Your task to perform on an android device: Play the last video I watched on Youtube Image 0: 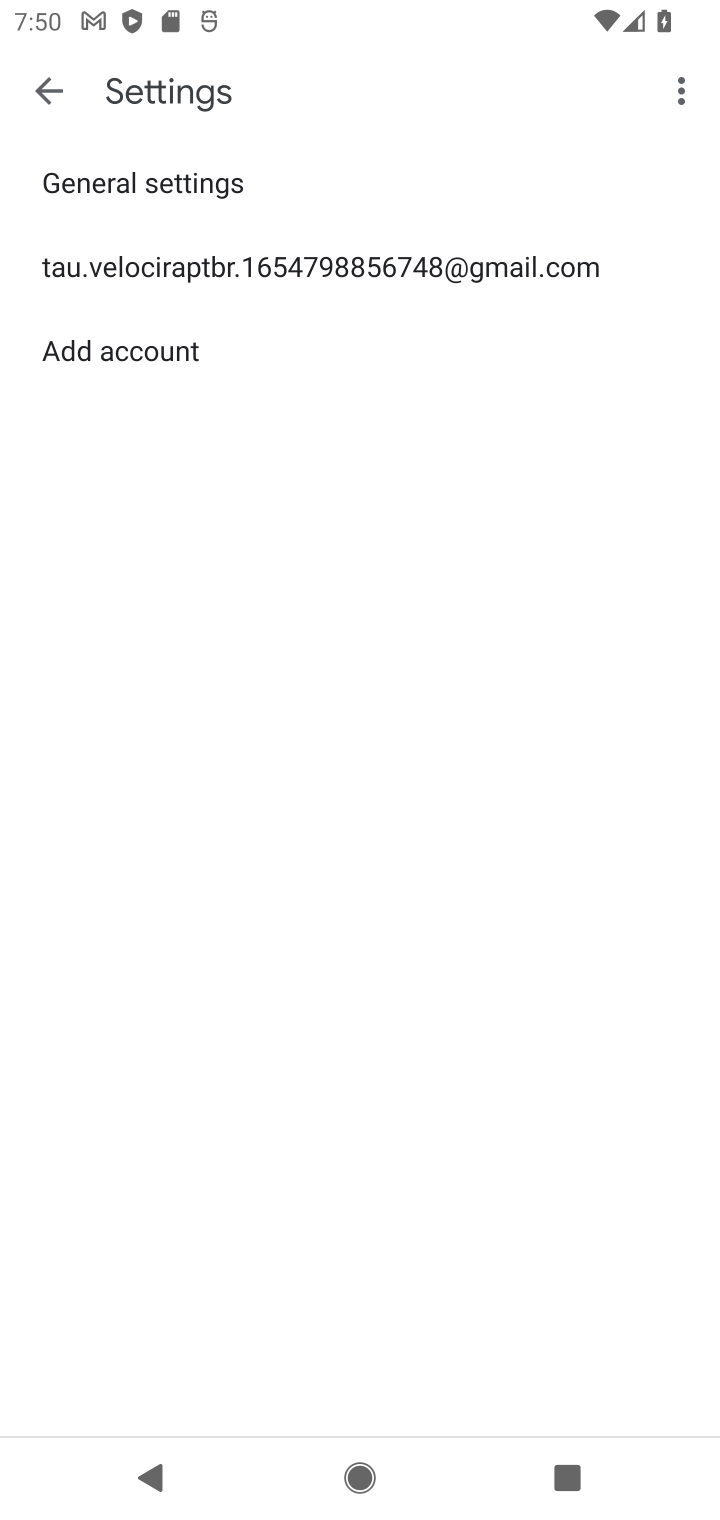
Step 0: press home button
Your task to perform on an android device: Play the last video I watched on Youtube Image 1: 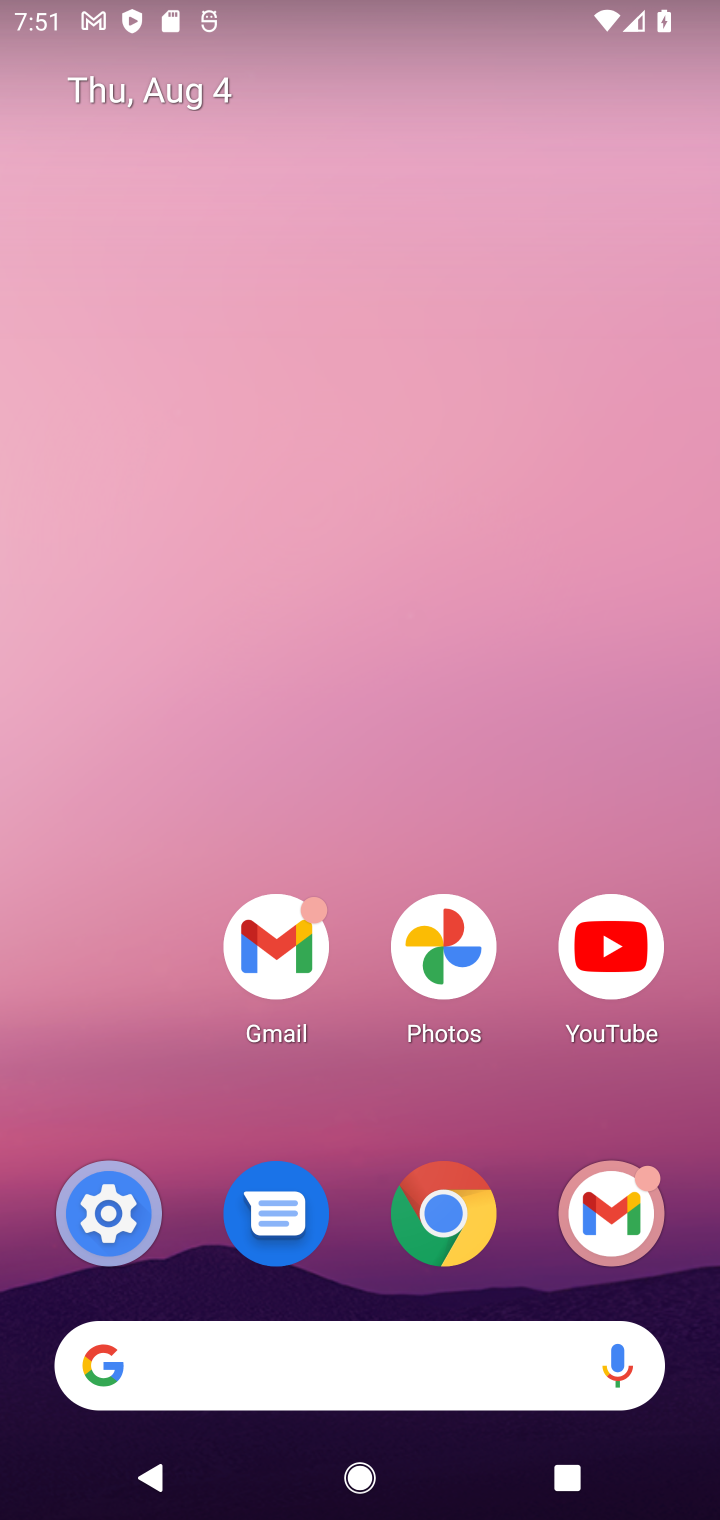
Step 1: click (616, 999)
Your task to perform on an android device: Play the last video I watched on Youtube Image 2: 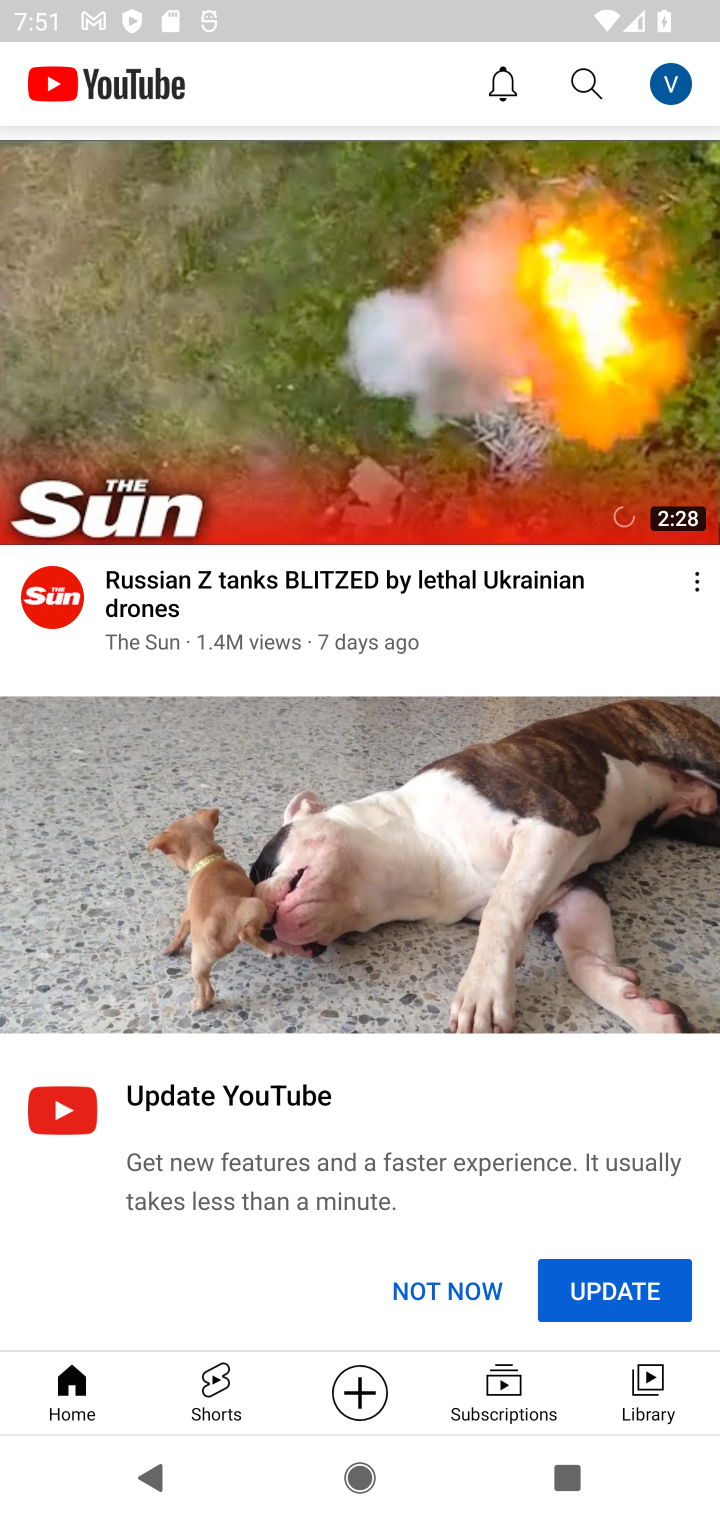
Step 2: click (641, 1375)
Your task to perform on an android device: Play the last video I watched on Youtube Image 3: 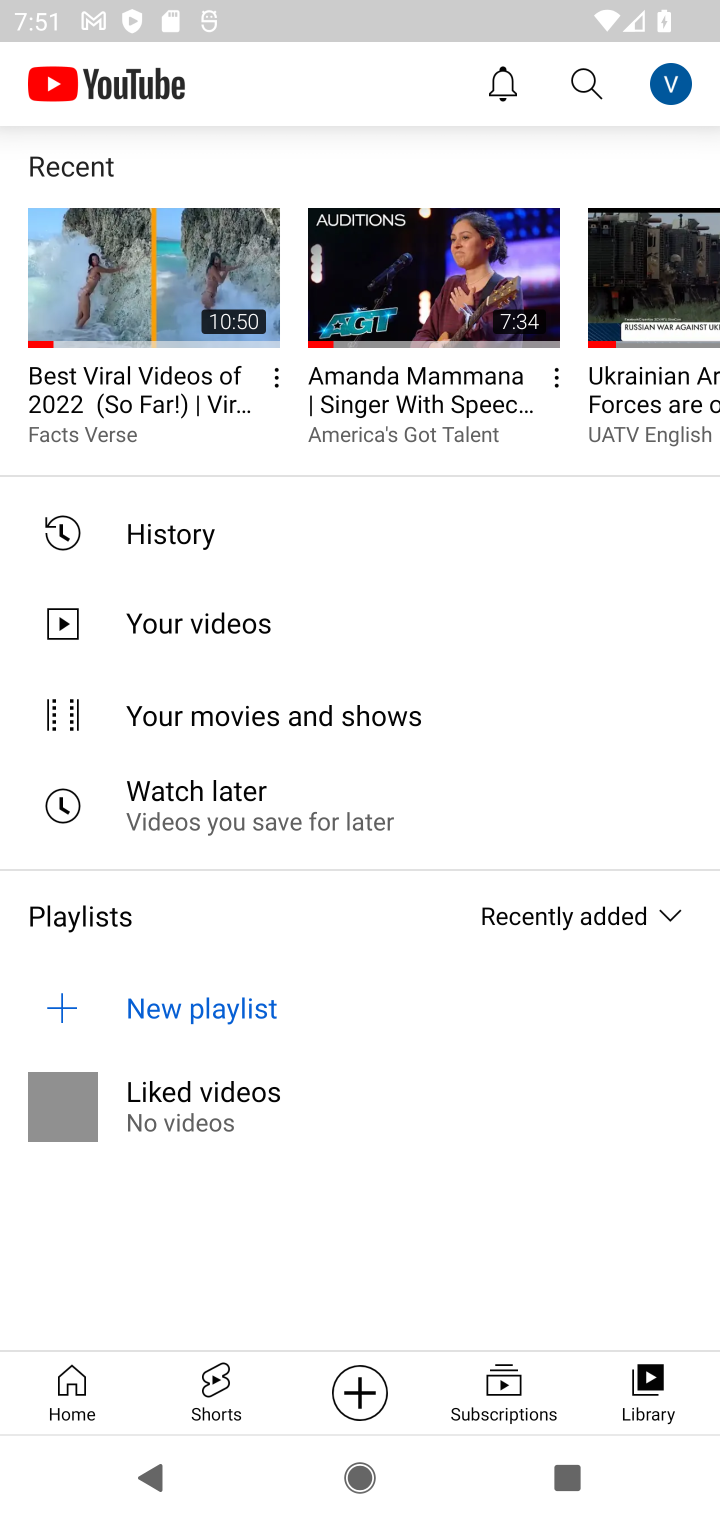
Step 3: task complete